Your task to perform on an android device: Turn off the flashlight Image 0: 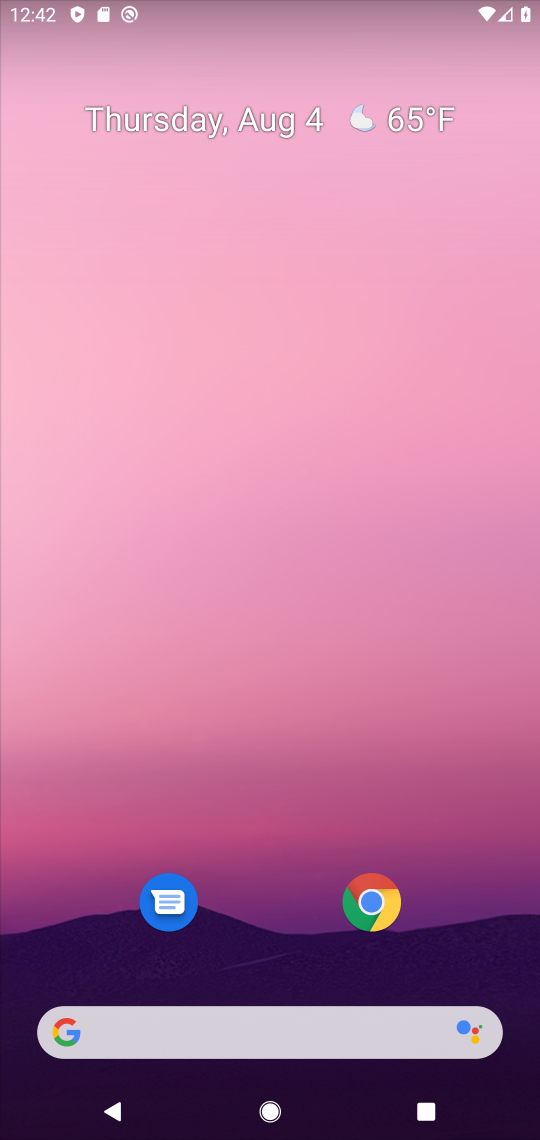
Step 0: drag from (278, 20) to (306, 797)
Your task to perform on an android device: Turn off the flashlight Image 1: 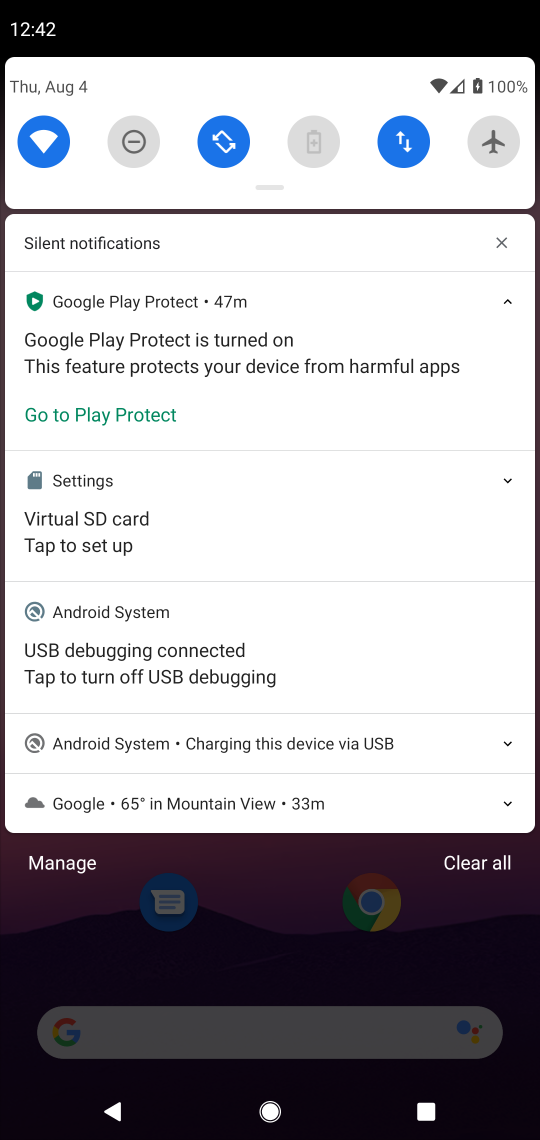
Step 1: drag from (266, 188) to (312, 839)
Your task to perform on an android device: Turn off the flashlight Image 2: 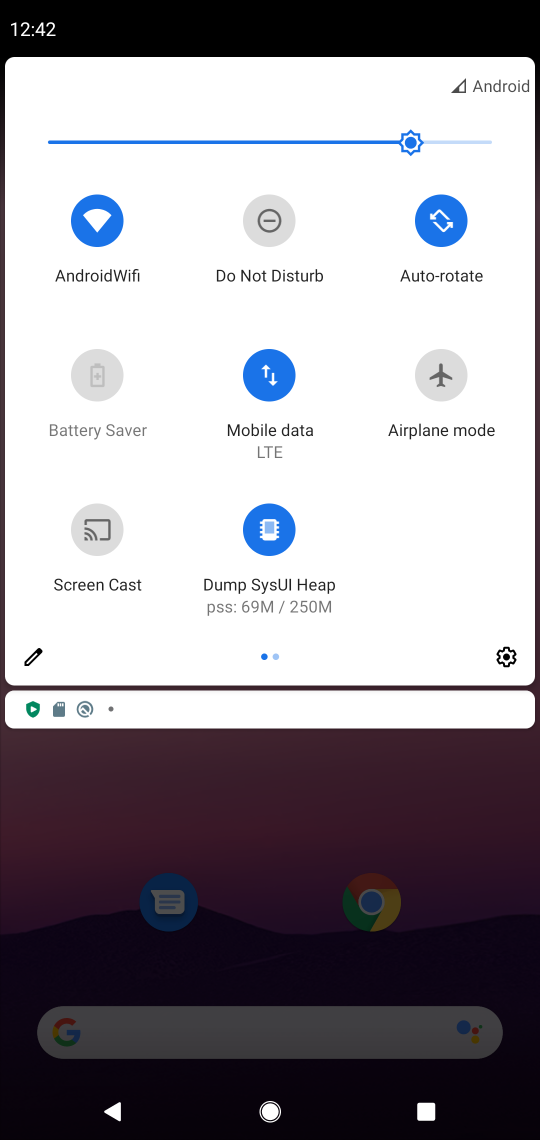
Step 2: click (29, 654)
Your task to perform on an android device: Turn off the flashlight Image 3: 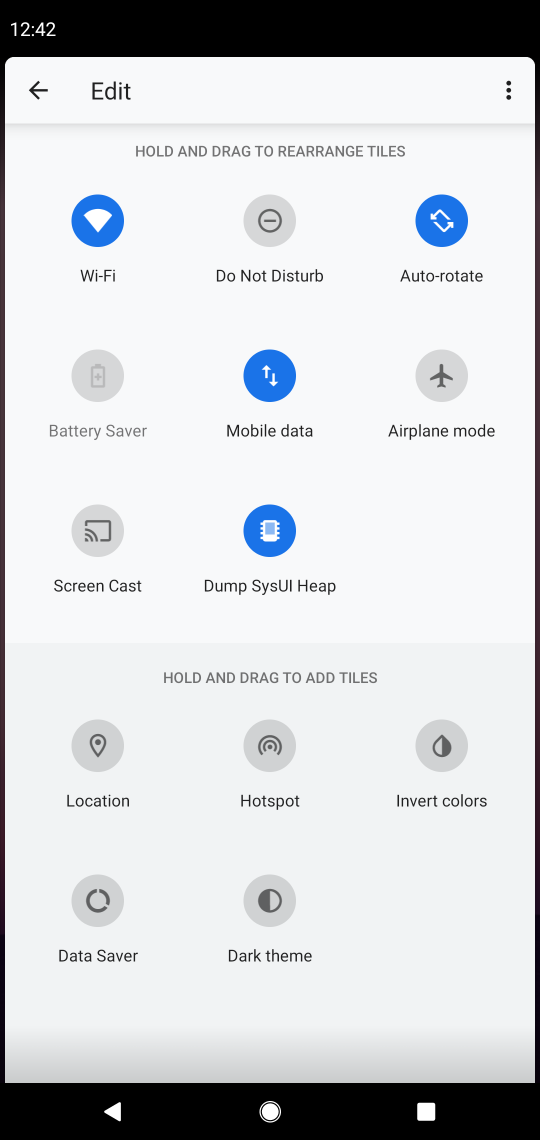
Step 3: task complete